Your task to perform on an android device: Add "razer blade" to the cart on target Image 0: 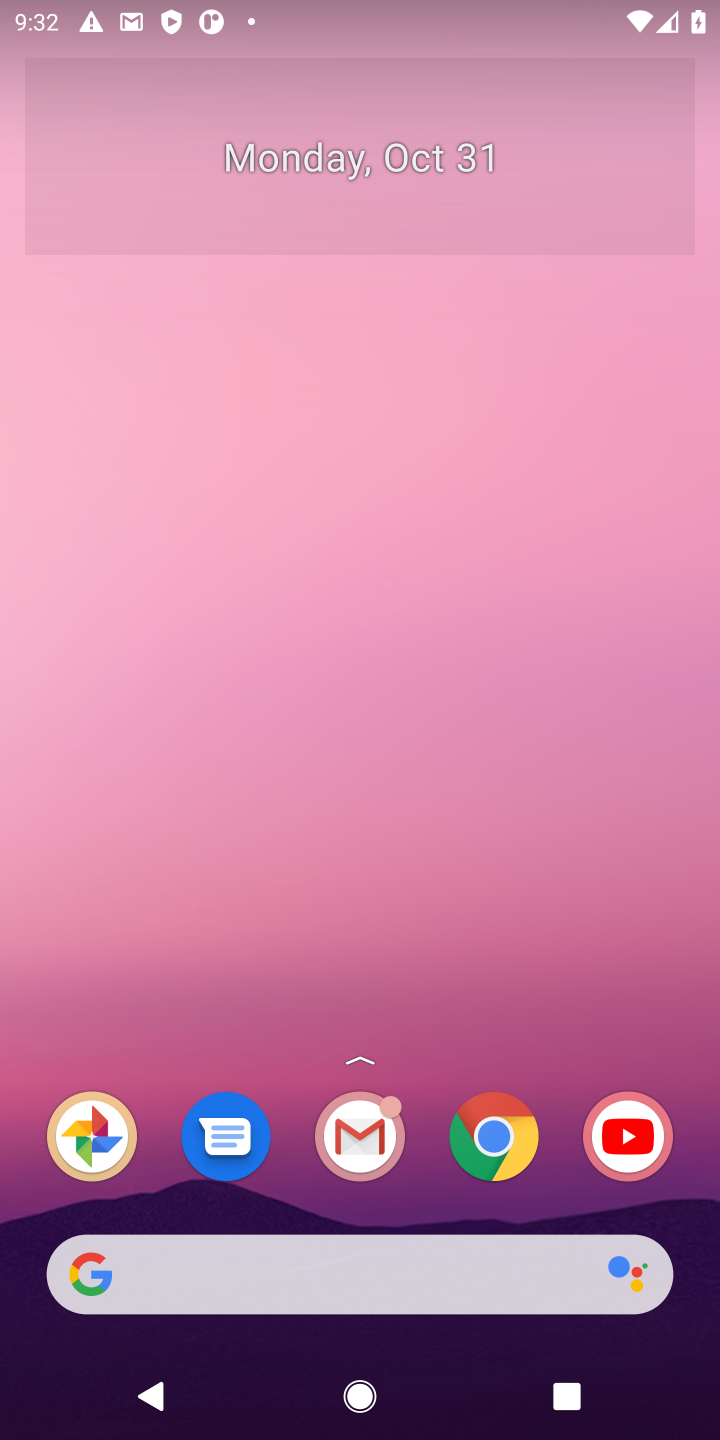
Step 0: task complete